Your task to perform on an android device: Search for the new Nike Air Max 270 on Nike.com Image 0: 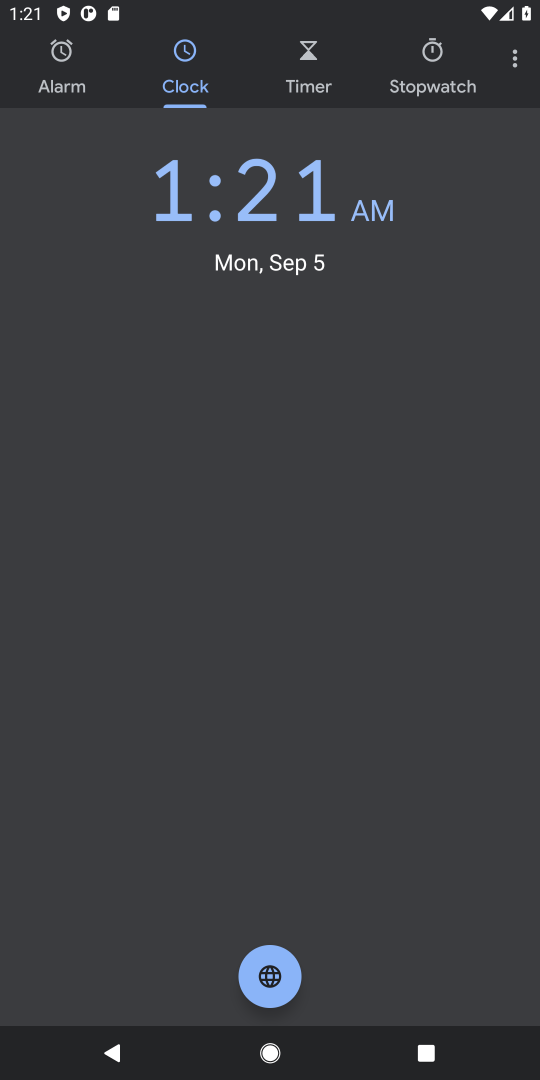
Step 0: press home button
Your task to perform on an android device: Search for the new Nike Air Max 270 on Nike.com Image 1: 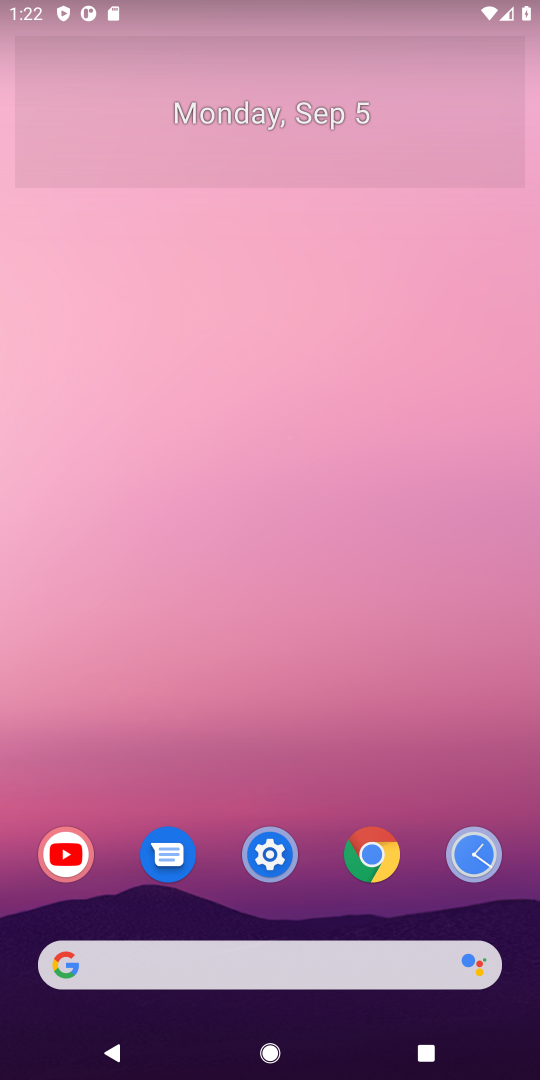
Step 1: click (148, 974)
Your task to perform on an android device: Search for the new Nike Air Max 270 on Nike.com Image 2: 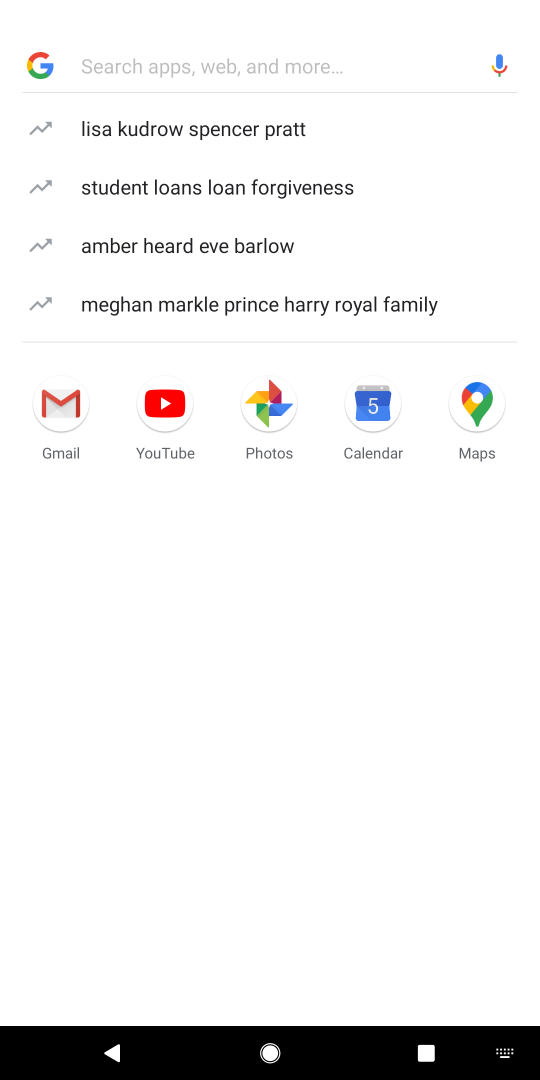
Step 2: type "Nike.com"
Your task to perform on an android device: Search for the new Nike Air Max 270 on Nike.com Image 3: 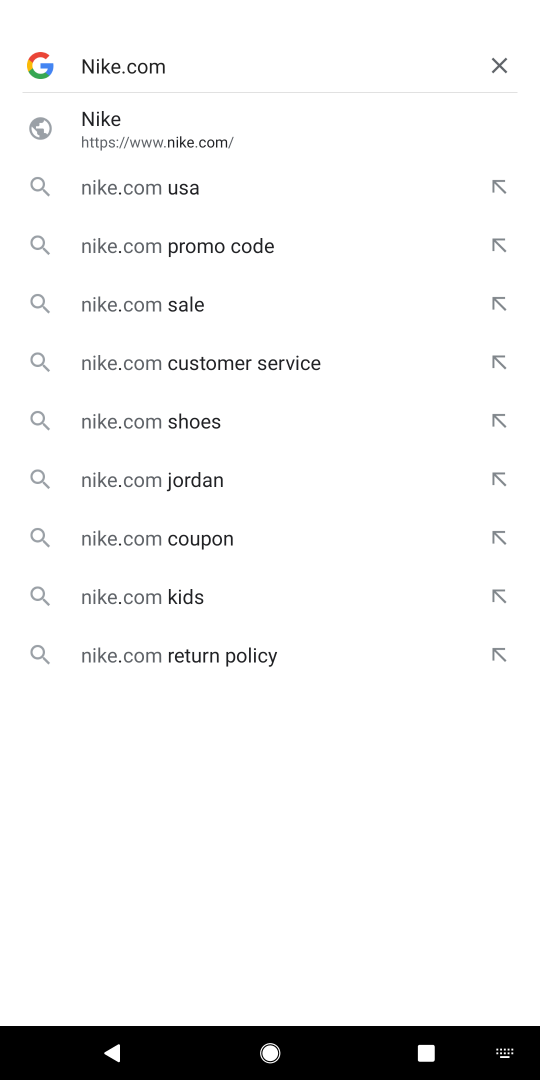
Step 3: click (166, 143)
Your task to perform on an android device: Search for the new Nike Air Max 270 on Nike.com Image 4: 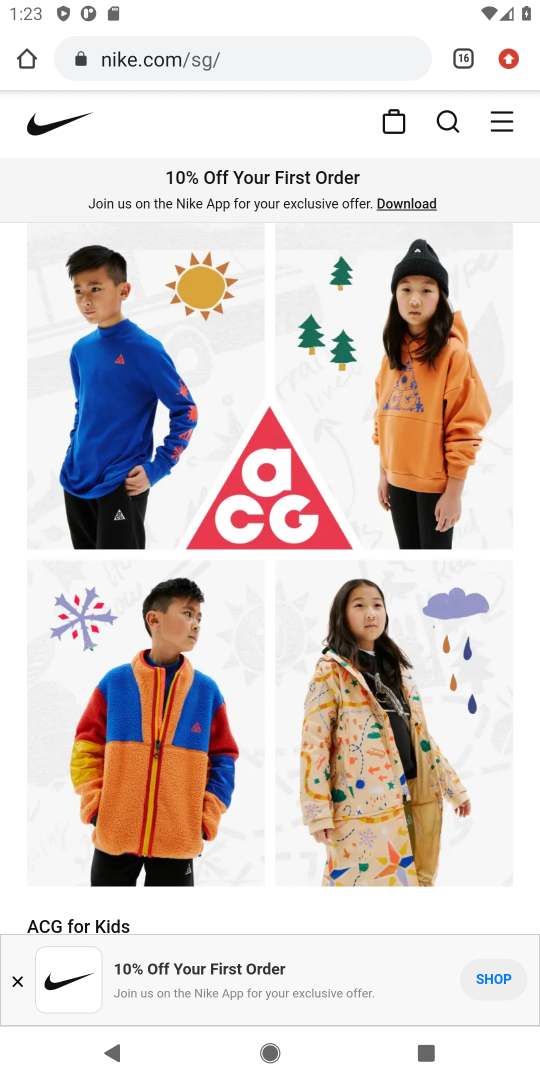
Step 4: click (442, 117)
Your task to perform on an android device: Search for the new Nike Air Max 270 on Nike.com Image 5: 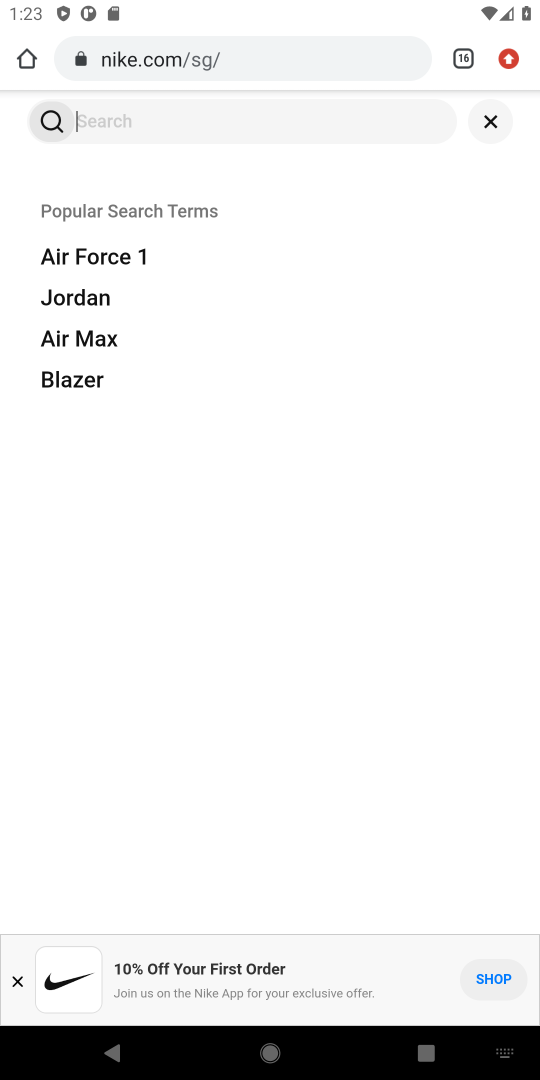
Step 5: type "Air Max 270"
Your task to perform on an android device: Search for the new Nike Air Max 270 on Nike.com Image 6: 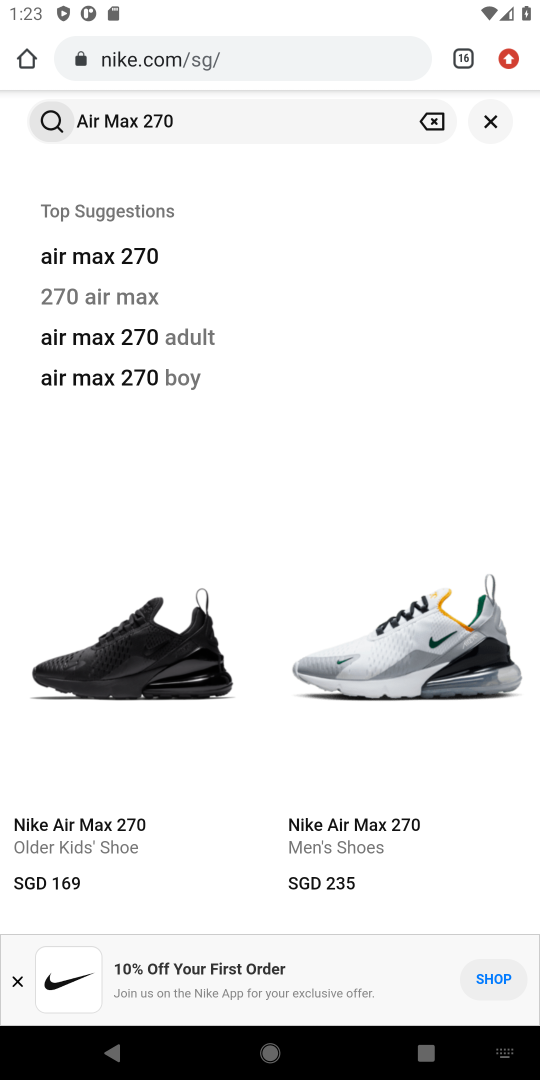
Step 6: click (130, 246)
Your task to perform on an android device: Search for the new Nike Air Max 270 on Nike.com Image 7: 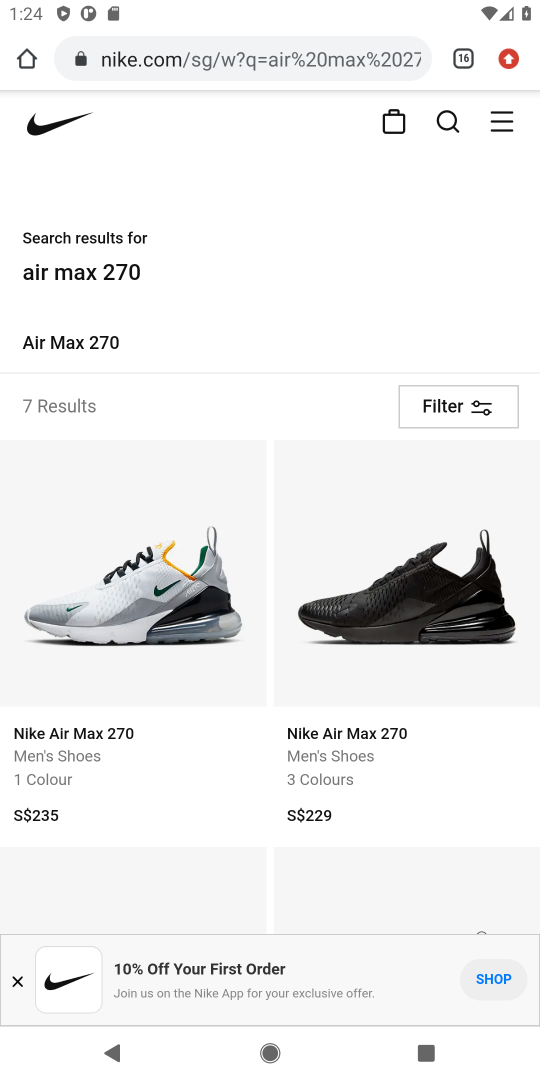
Step 7: task complete